Your task to perform on an android device: search for starred emails in the gmail app Image 0: 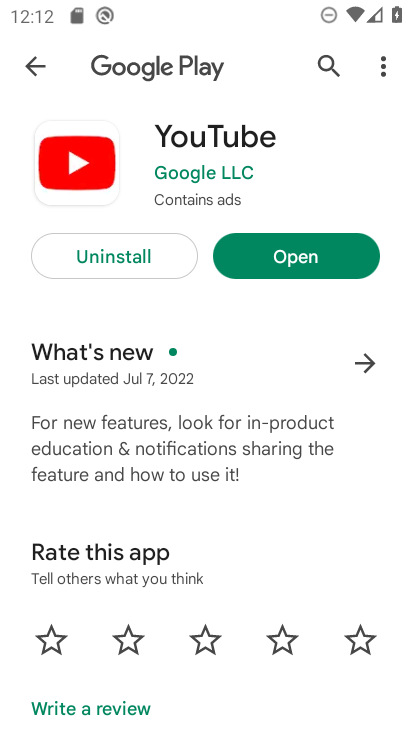
Step 0: press home button
Your task to perform on an android device: search for starred emails in the gmail app Image 1: 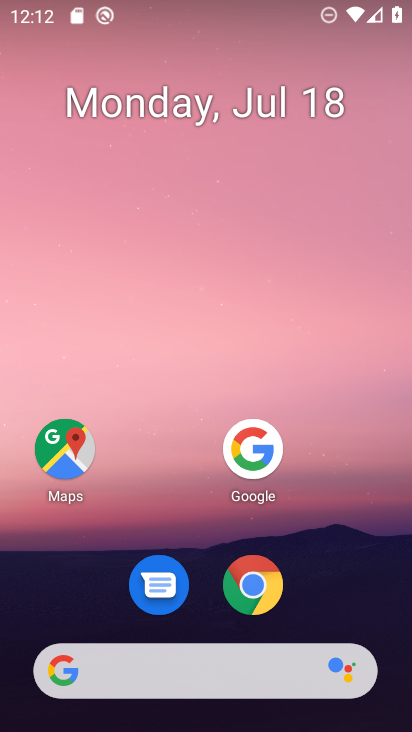
Step 1: drag from (249, 680) to (400, 285)
Your task to perform on an android device: search for starred emails in the gmail app Image 2: 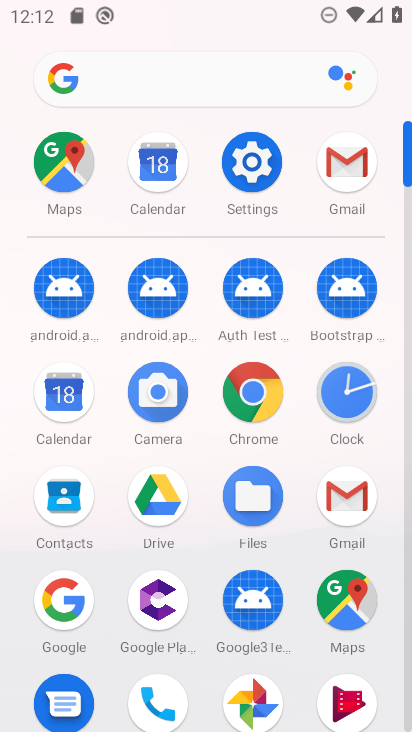
Step 2: click (347, 176)
Your task to perform on an android device: search for starred emails in the gmail app Image 3: 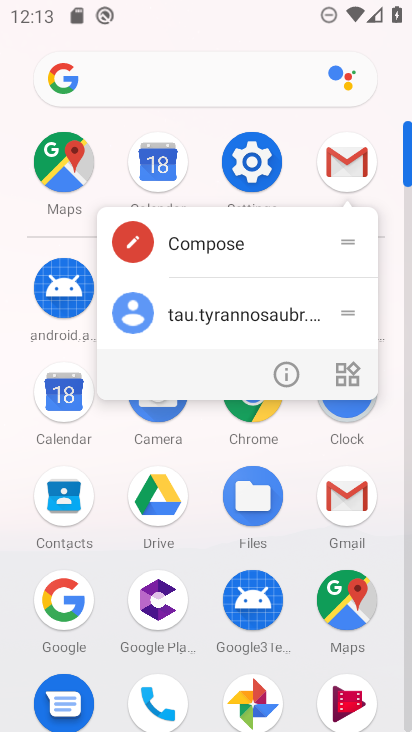
Step 3: click (355, 172)
Your task to perform on an android device: search for starred emails in the gmail app Image 4: 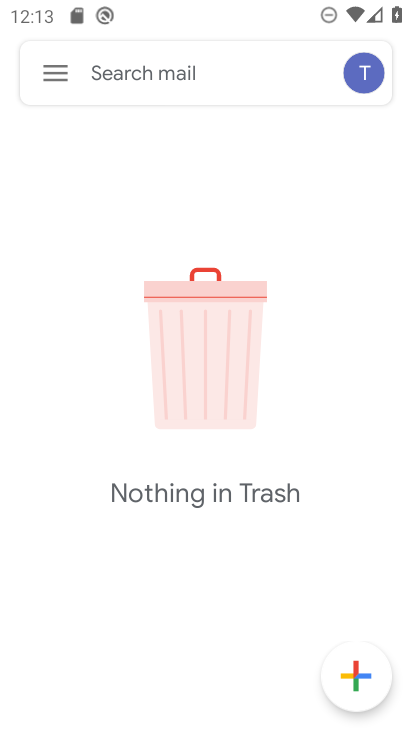
Step 4: click (56, 65)
Your task to perform on an android device: search for starred emails in the gmail app Image 5: 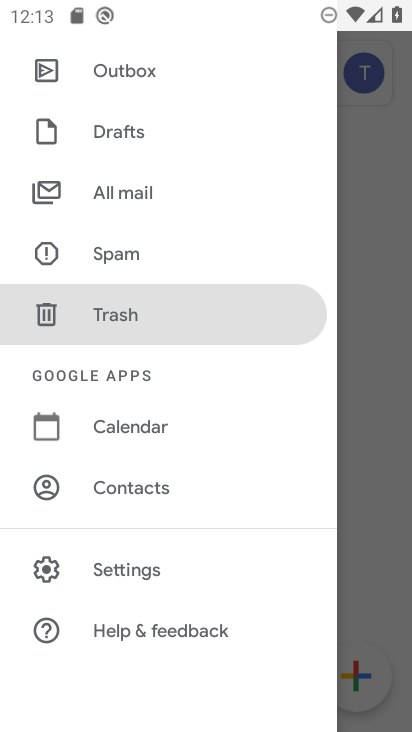
Step 5: drag from (267, 122) to (234, 383)
Your task to perform on an android device: search for starred emails in the gmail app Image 6: 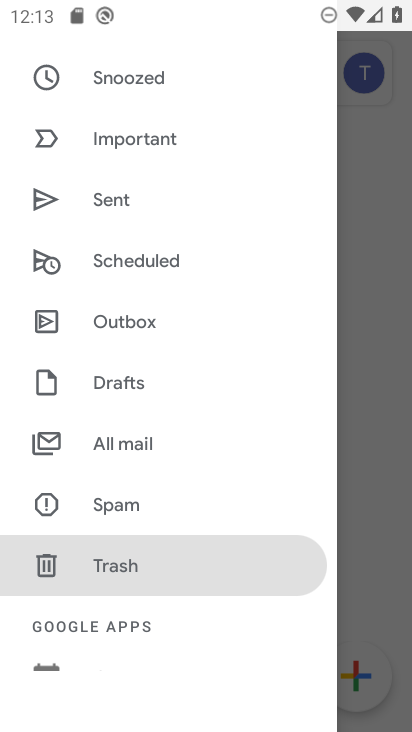
Step 6: drag from (199, 109) to (177, 385)
Your task to perform on an android device: search for starred emails in the gmail app Image 7: 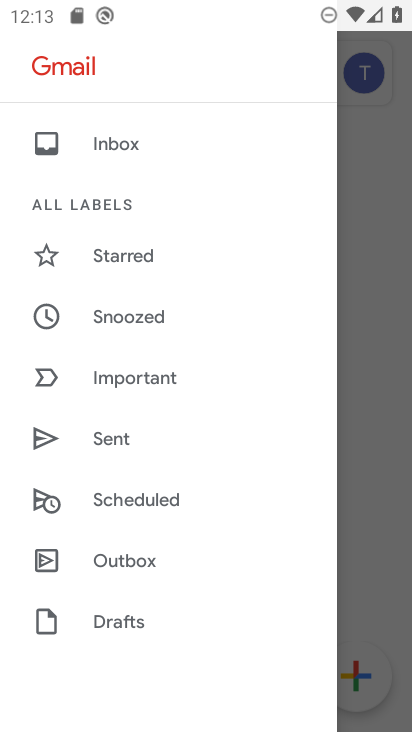
Step 7: click (133, 263)
Your task to perform on an android device: search for starred emails in the gmail app Image 8: 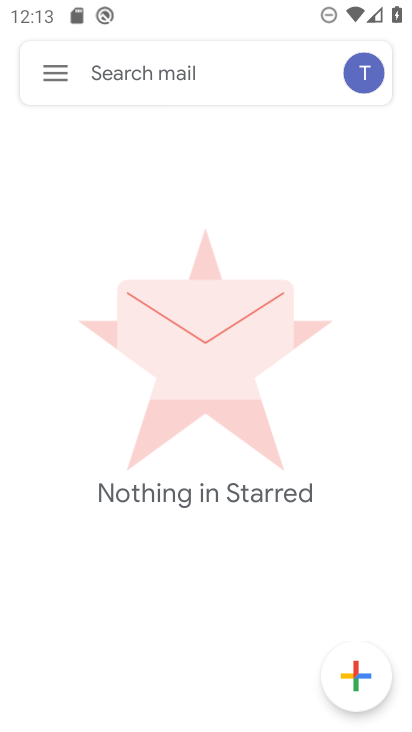
Step 8: task complete